Your task to perform on an android device: snooze an email in the gmail app Image 0: 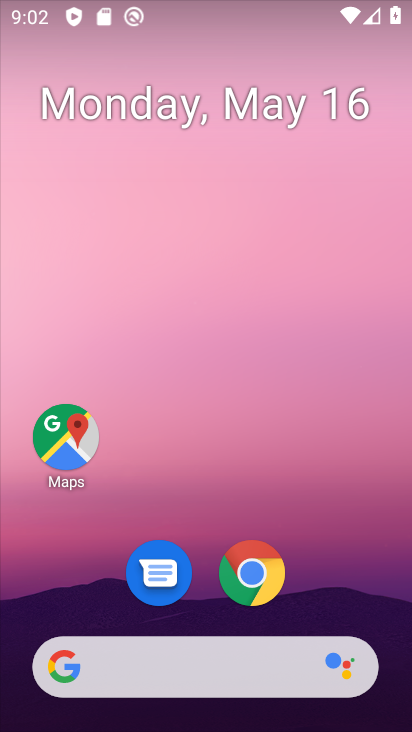
Step 0: click (248, 579)
Your task to perform on an android device: snooze an email in the gmail app Image 1: 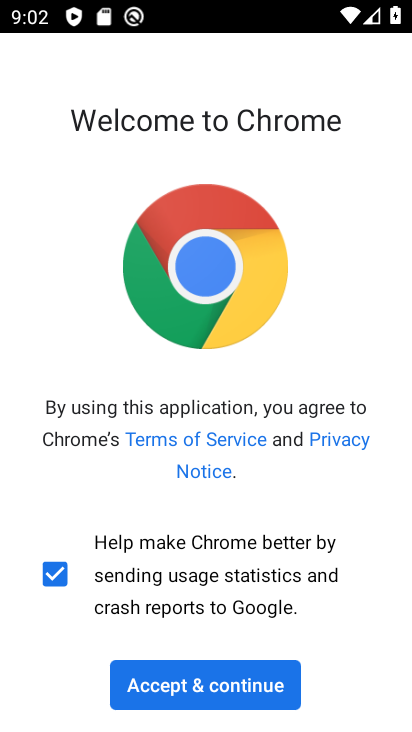
Step 1: click (216, 680)
Your task to perform on an android device: snooze an email in the gmail app Image 2: 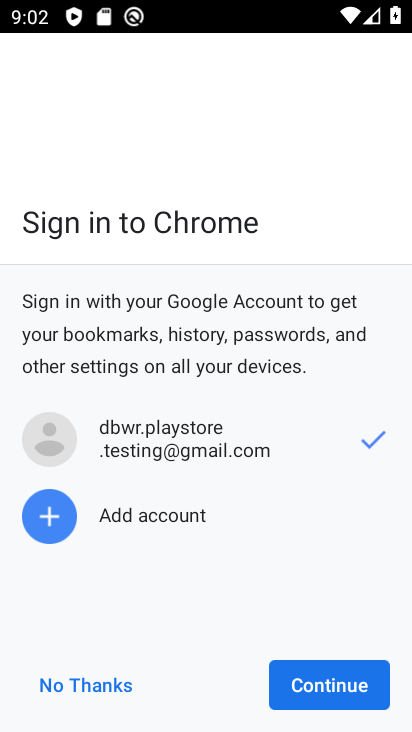
Step 2: click (304, 675)
Your task to perform on an android device: snooze an email in the gmail app Image 3: 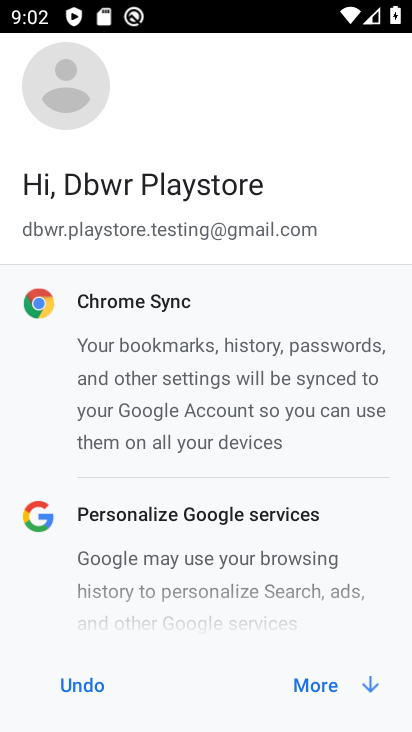
Step 3: click (304, 675)
Your task to perform on an android device: snooze an email in the gmail app Image 4: 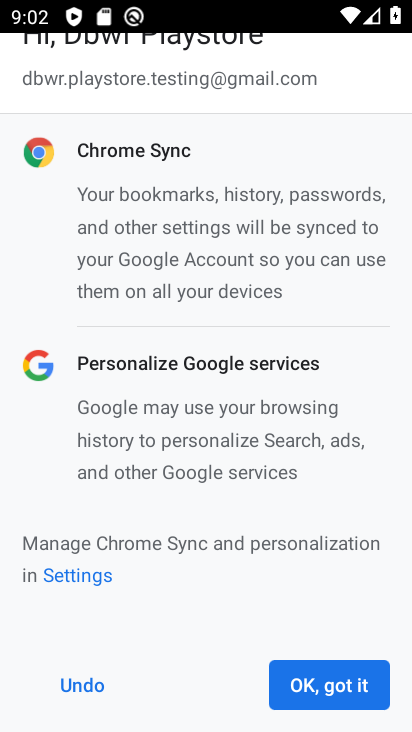
Step 4: click (304, 675)
Your task to perform on an android device: snooze an email in the gmail app Image 5: 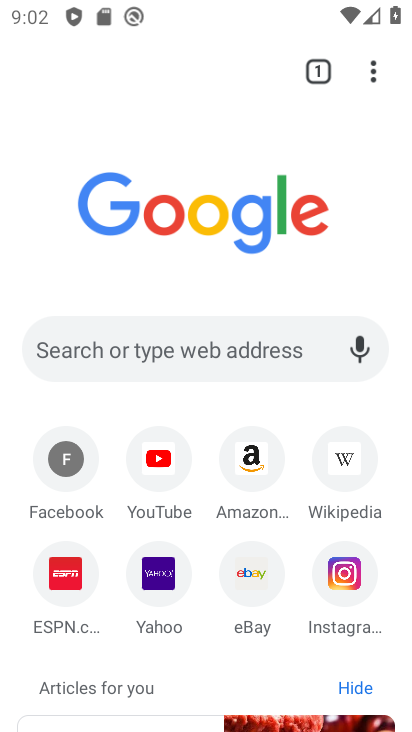
Step 5: click (250, 343)
Your task to perform on an android device: snooze an email in the gmail app Image 6: 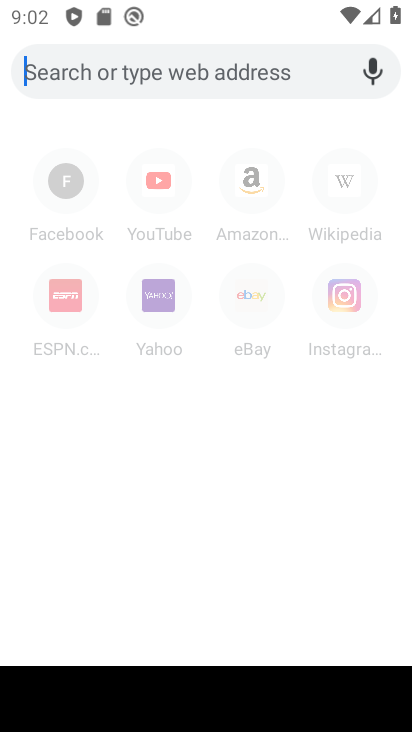
Step 6: press home button
Your task to perform on an android device: snooze an email in the gmail app Image 7: 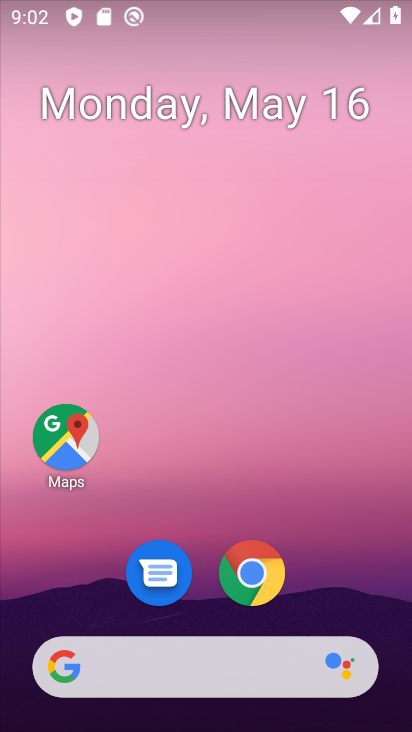
Step 7: drag from (321, 577) to (337, 139)
Your task to perform on an android device: snooze an email in the gmail app Image 8: 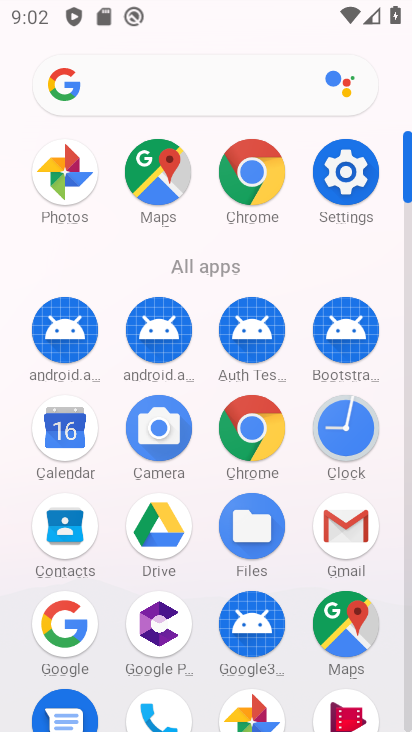
Step 8: click (358, 534)
Your task to perform on an android device: snooze an email in the gmail app Image 9: 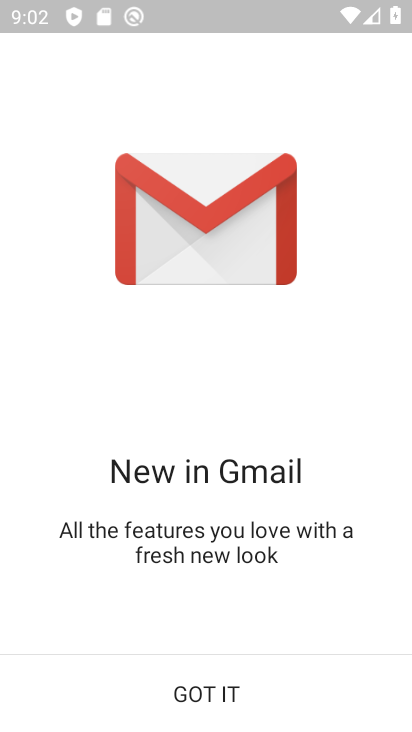
Step 9: click (222, 675)
Your task to perform on an android device: snooze an email in the gmail app Image 10: 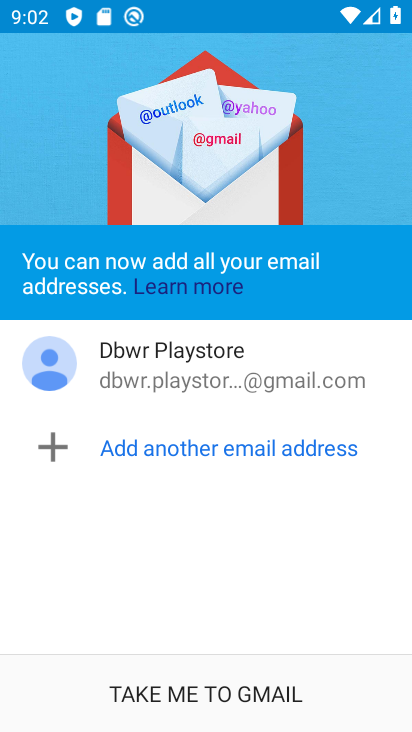
Step 10: click (226, 705)
Your task to perform on an android device: snooze an email in the gmail app Image 11: 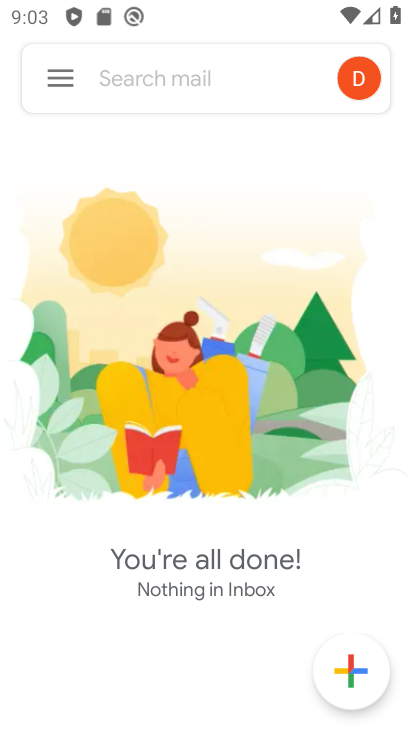
Step 11: click (62, 70)
Your task to perform on an android device: snooze an email in the gmail app Image 12: 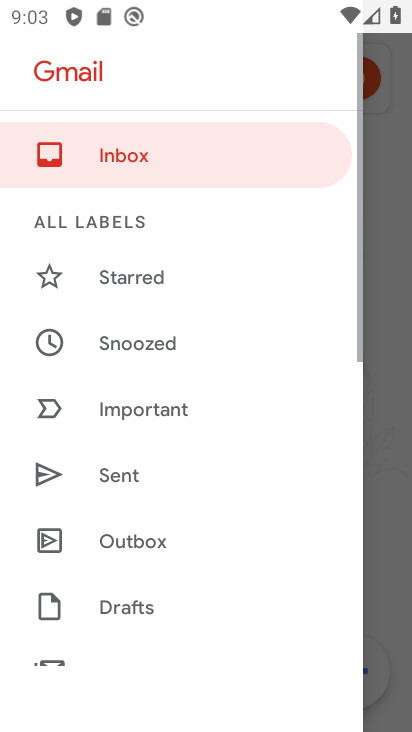
Step 12: drag from (135, 562) to (231, 156)
Your task to perform on an android device: snooze an email in the gmail app Image 13: 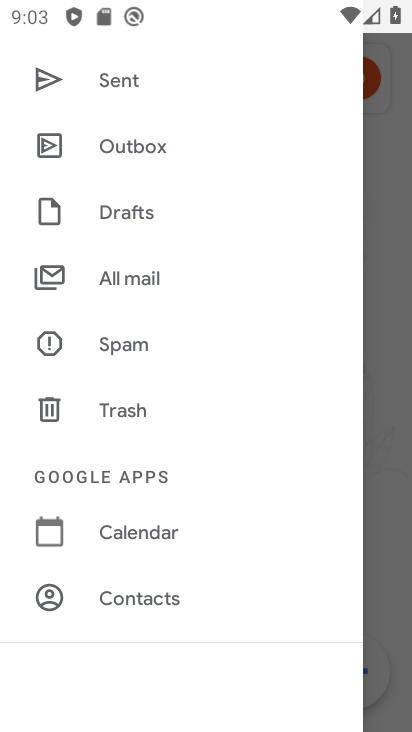
Step 13: click (148, 274)
Your task to perform on an android device: snooze an email in the gmail app Image 14: 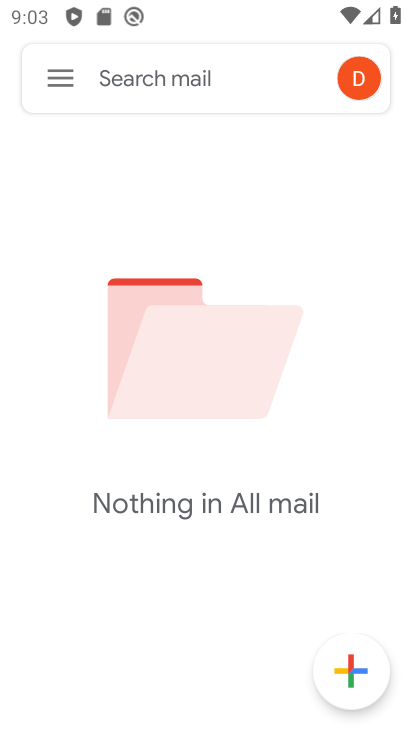
Step 14: task complete